Your task to perform on an android device: Go to display settings Image 0: 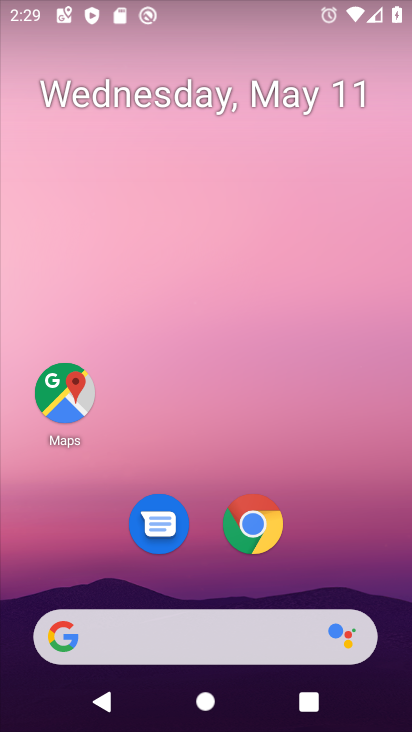
Step 0: drag from (335, 478) to (346, 41)
Your task to perform on an android device: Go to display settings Image 1: 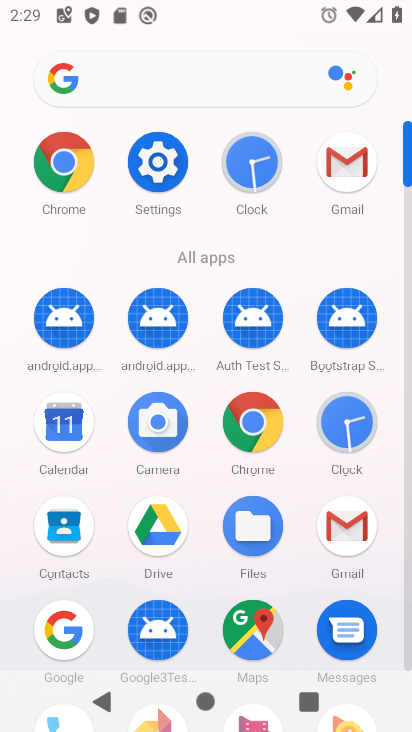
Step 1: click (170, 162)
Your task to perform on an android device: Go to display settings Image 2: 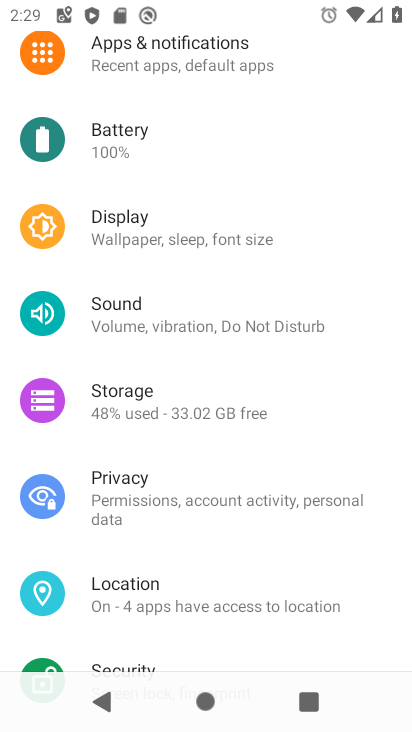
Step 2: click (181, 230)
Your task to perform on an android device: Go to display settings Image 3: 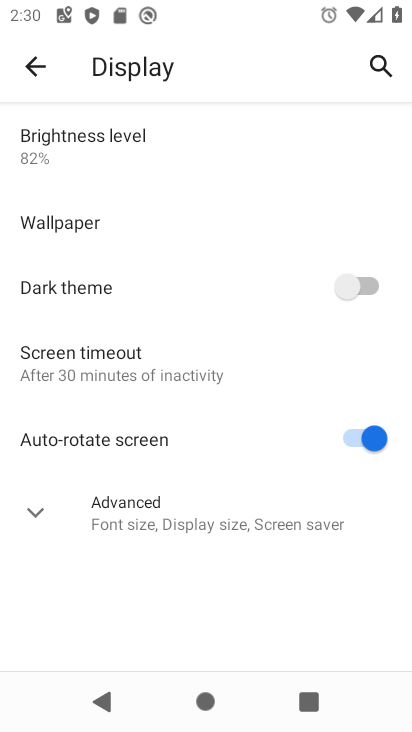
Step 3: task complete